Your task to perform on an android device: Go to Android settings Image 0: 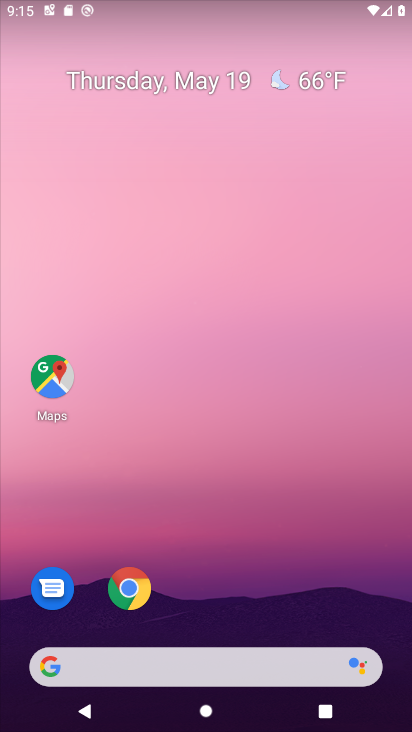
Step 0: drag from (332, 613) to (354, 133)
Your task to perform on an android device: Go to Android settings Image 1: 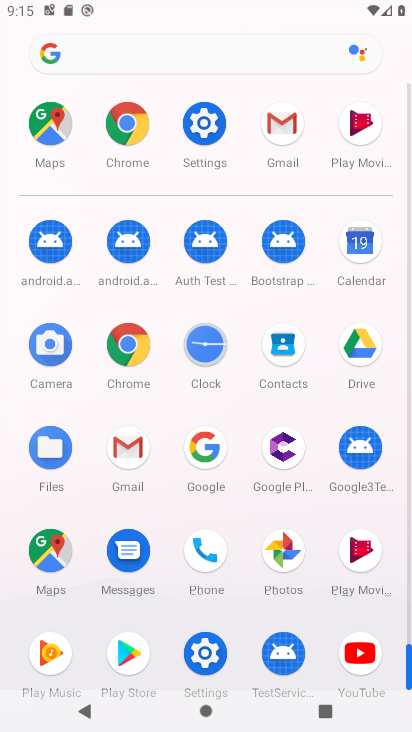
Step 1: drag from (241, 610) to (232, 378)
Your task to perform on an android device: Go to Android settings Image 2: 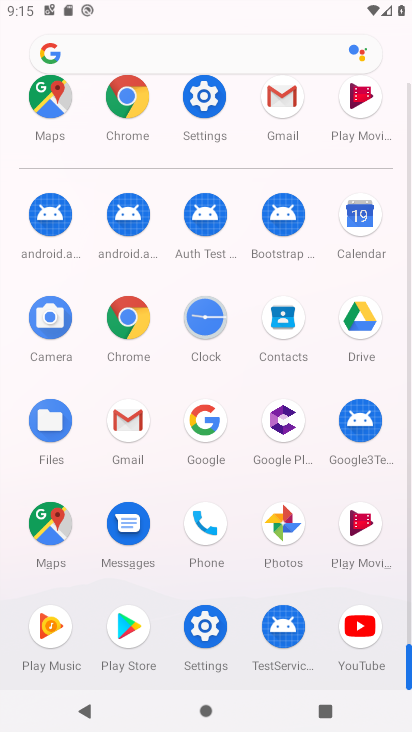
Step 2: click (213, 633)
Your task to perform on an android device: Go to Android settings Image 3: 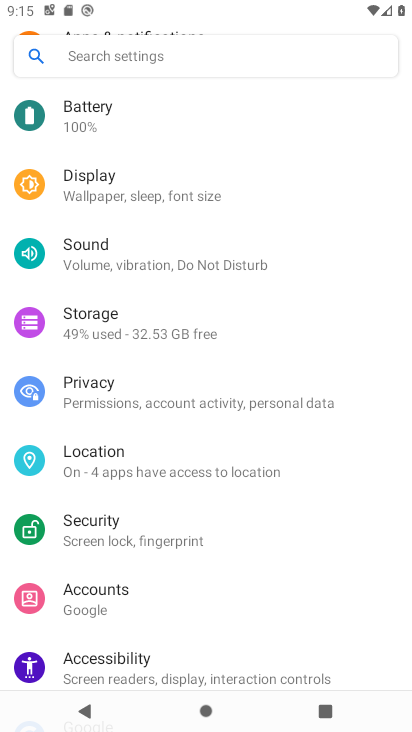
Step 3: drag from (329, 616) to (343, 446)
Your task to perform on an android device: Go to Android settings Image 4: 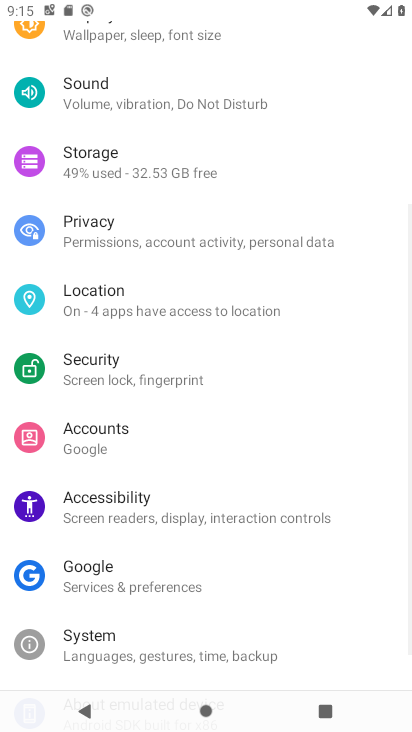
Step 4: drag from (344, 623) to (343, 447)
Your task to perform on an android device: Go to Android settings Image 5: 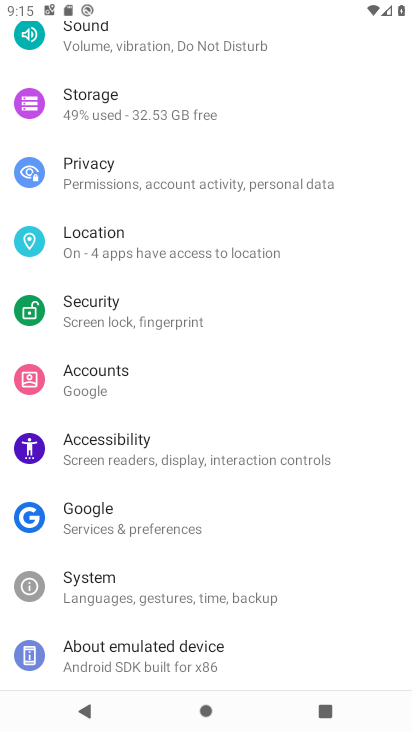
Step 5: drag from (352, 376) to (339, 540)
Your task to perform on an android device: Go to Android settings Image 6: 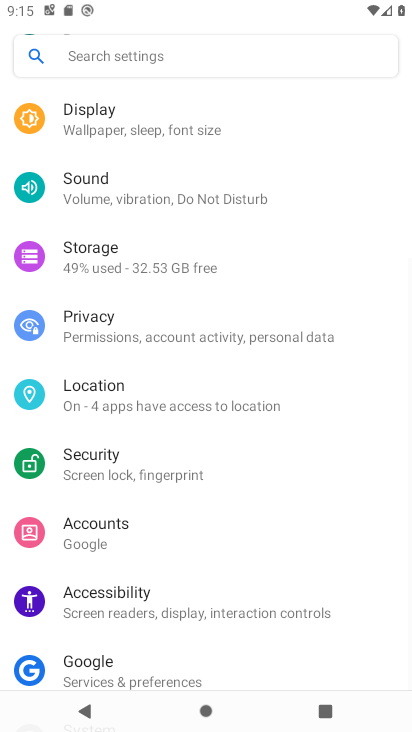
Step 6: drag from (360, 379) to (351, 490)
Your task to perform on an android device: Go to Android settings Image 7: 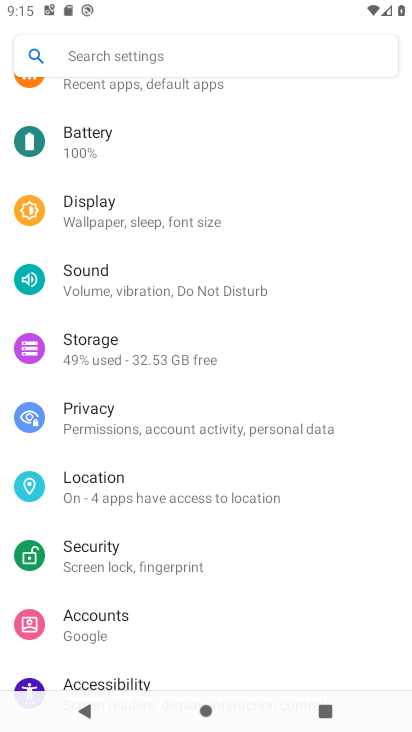
Step 7: drag from (360, 354) to (353, 456)
Your task to perform on an android device: Go to Android settings Image 8: 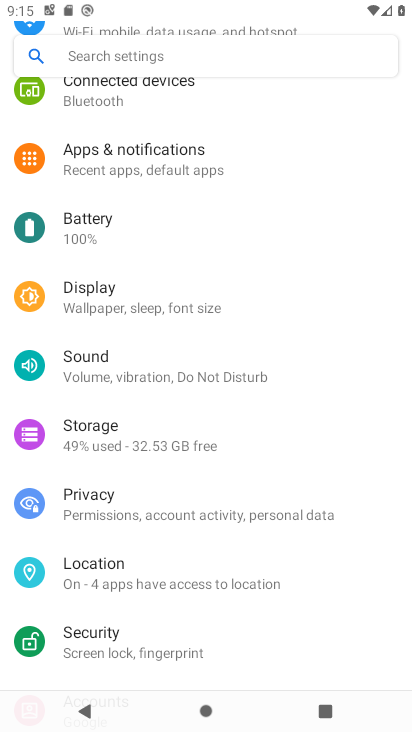
Step 8: drag from (358, 375) to (354, 483)
Your task to perform on an android device: Go to Android settings Image 9: 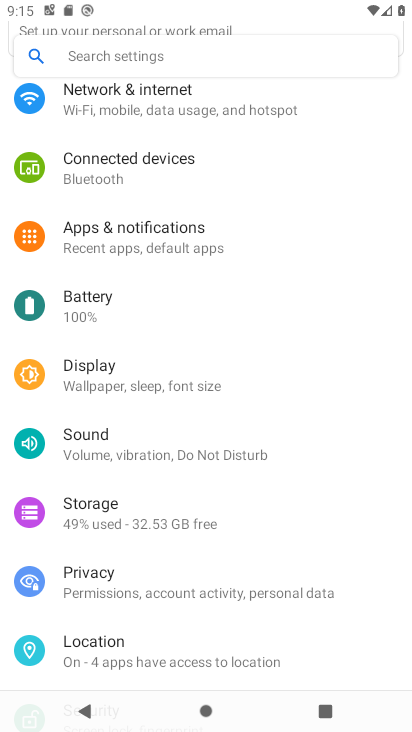
Step 9: drag from (351, 355) to (353, 493)
Your task to perform on an android device: Go to Android settings Image 10: 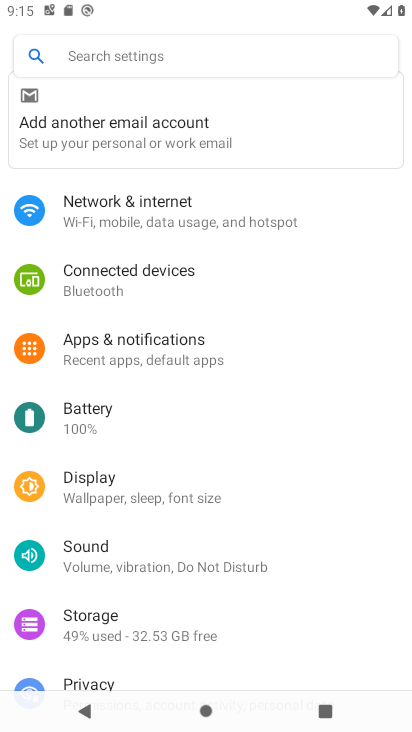
Step 10: drag from (342, 364) to (327, 577)
Your task to perform on an android device: Go to Android settings Image 11: 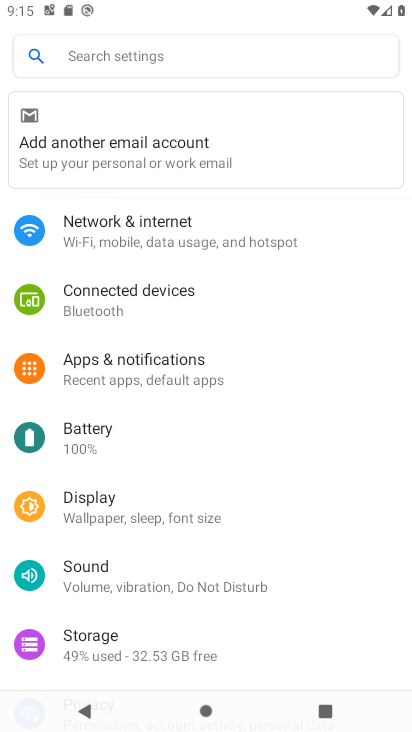
Step 11: drag from (346, 624) to (354, 493)
Your task to perform on an android device: Go to Android settings Image 12: 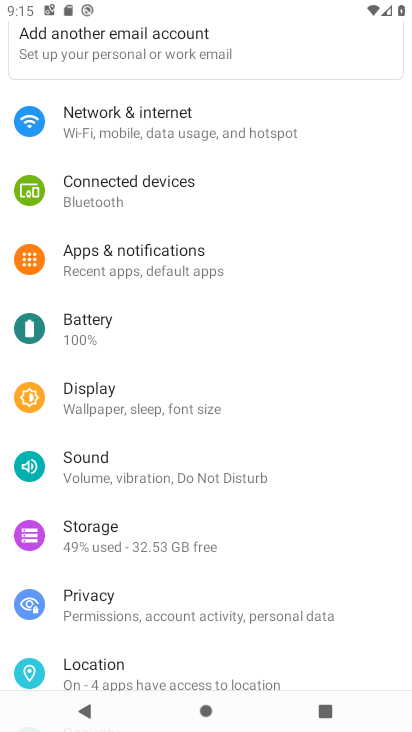
Step 12: drag from (365, 638) to (359, 490)
Your task to perform on an android device: Go to Android settings Image 13: 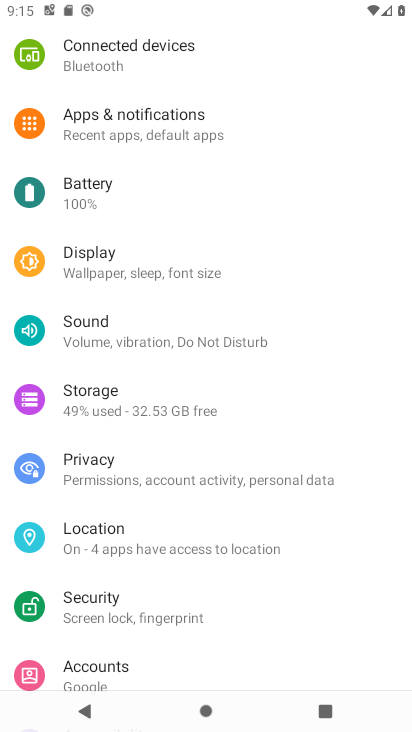
Step 13: drag from (358, 608) to (367, 469)
Your task to perform on an android device: Go to Android settings Image 14: 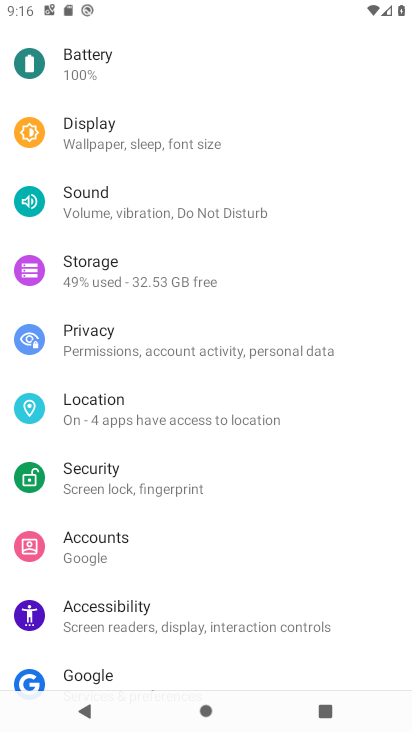
Step 14: drag from (347, 595) to (347, 463)
Your task to perform on an android device: Go to Android settings Image 15: 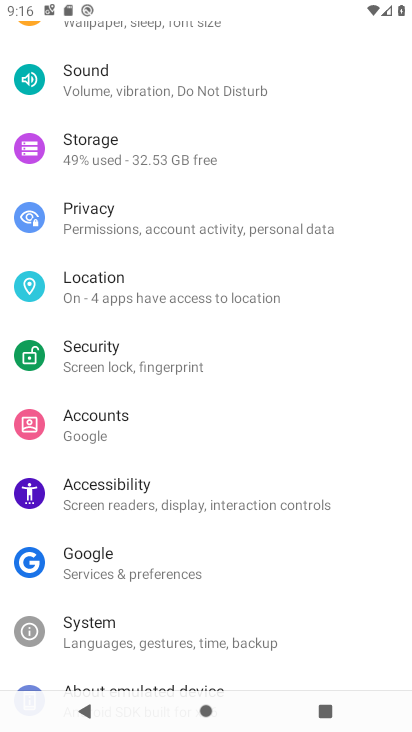
Step 15: drag from (346, 632) to (356, 456)
Your task to perform on an android device: Go to Android settings Image 16: 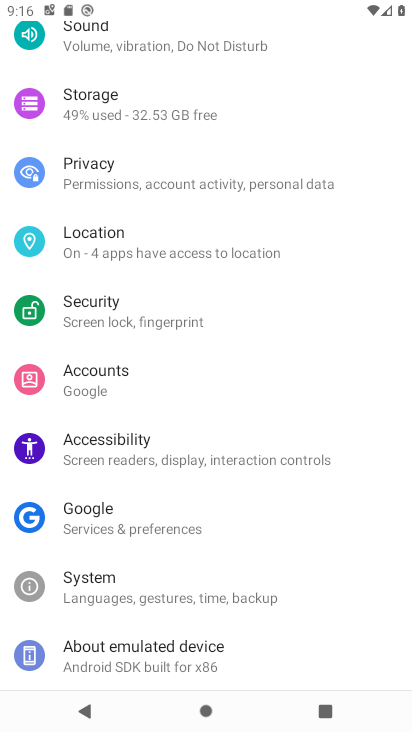
Step 16: click (245, 597)
Your task to perform on an android device: Go to Android settings Image 17: 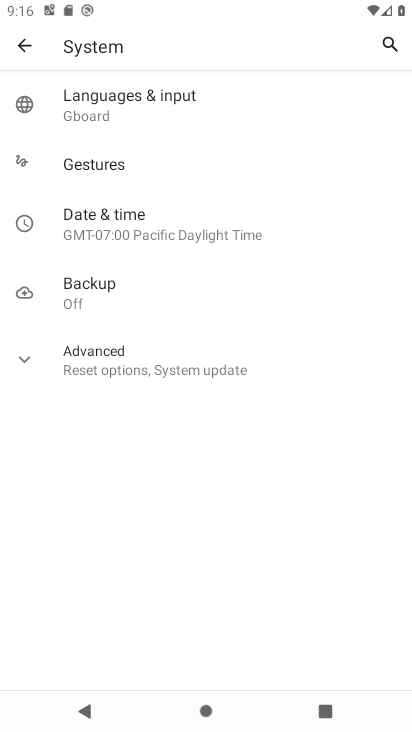
Step 17: click (184, 360)
Your task to perform on an android device: Go to Android settings Image 18: 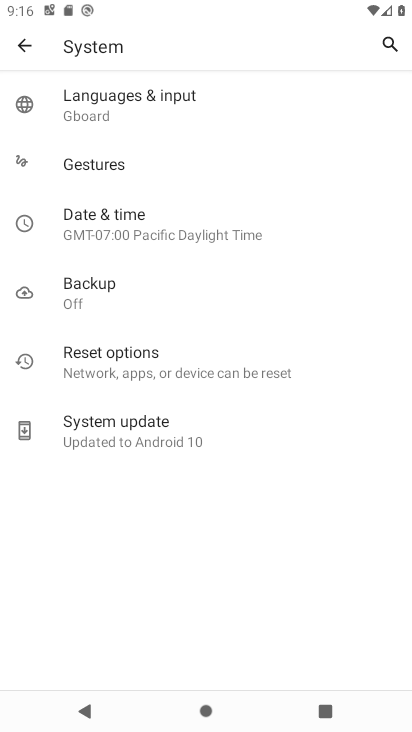
Step 18: task complete